Your task to perform on an android device: Set the phone to "Do not disturb". Image 0: 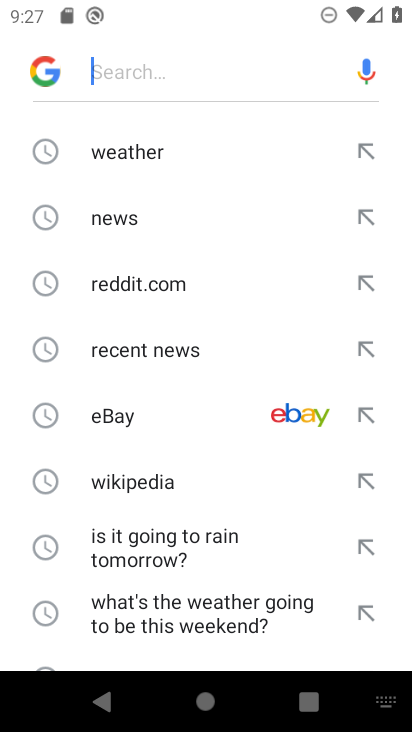
Step 0: press home button
Your task to perform on an android device: Set the phone to "Do not disturb". Image 1: 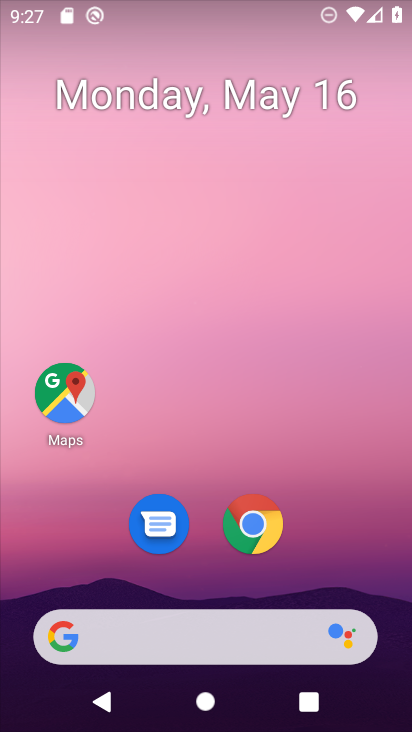
Step 1: drag from (211, 474) to (219, 23)
Your task to perform on an android device: Set the phone to "Do not disturb". Image 2: 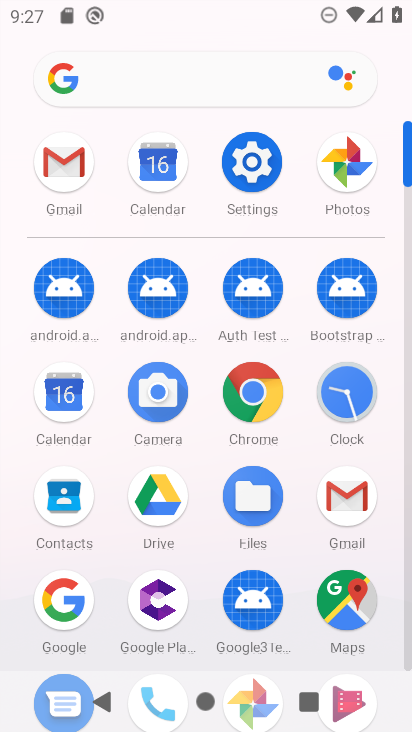
Step 2: click (249, 157)
Your task to perform on an android device: Set the phone to "Do not disturb". Image 3: 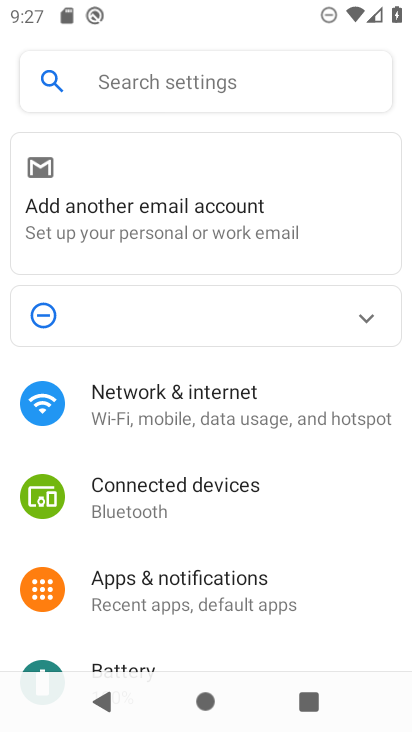
Step 3: drag from (256, 575) to (319, 203)
Your task to perform on an android device: Set the phone to "Do not disturb". Image 4: 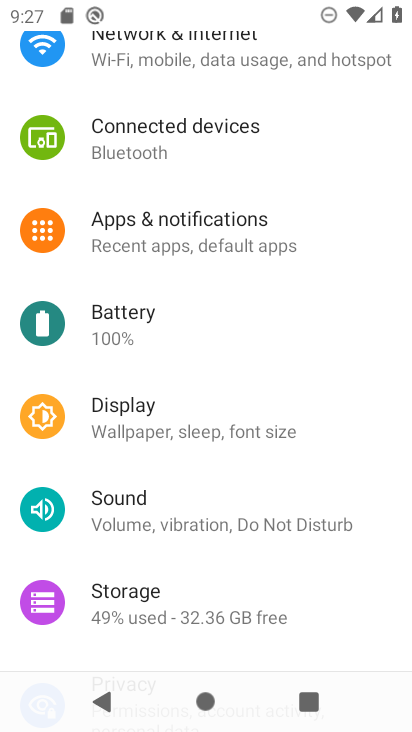
Step 4: click (218, 498)
Your task to perform on an android device: Set the phone to "Do not disturb". Image 5: 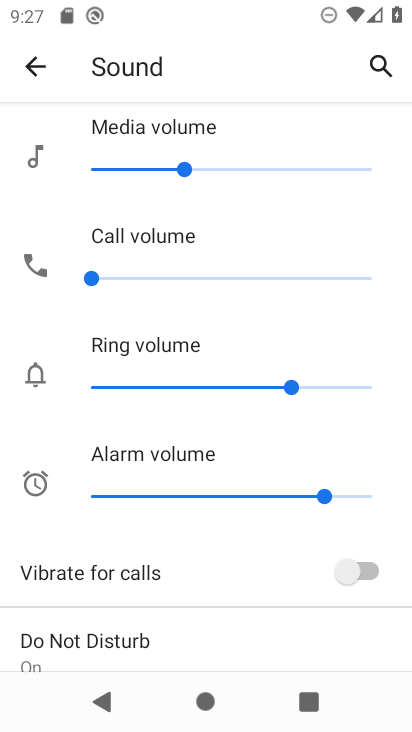
Step 5: task complete